Your task to perform on an android device: check storage Image 0: 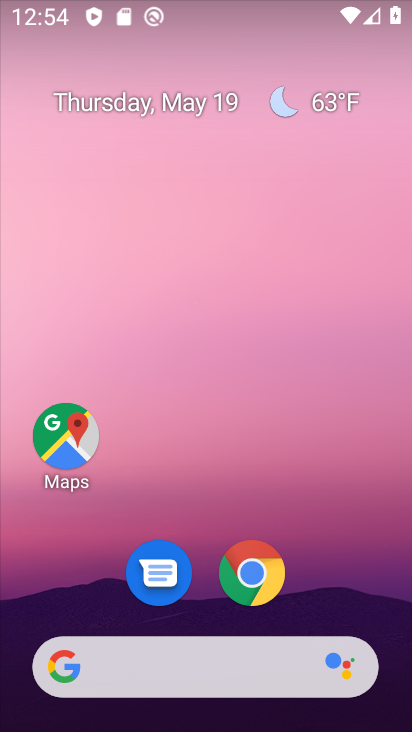
Step 0: drag from (331, 585) to (338, 312)
Your task to perform on an android device: check storage Image 1: 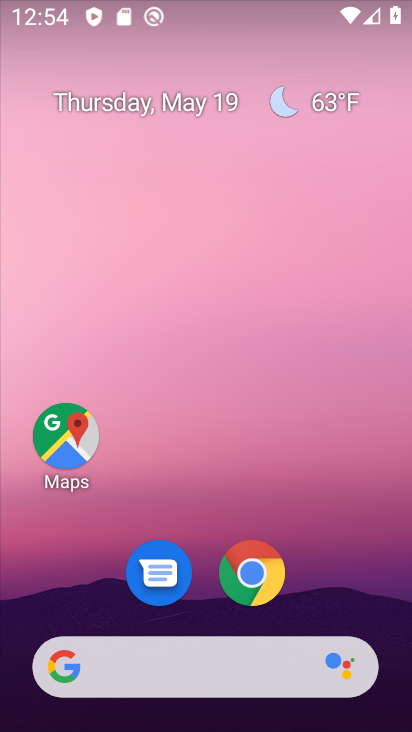
Step 1: drag from (287, 600) to (331, 306)
Your task to perform on an android device: check storage Image 2: 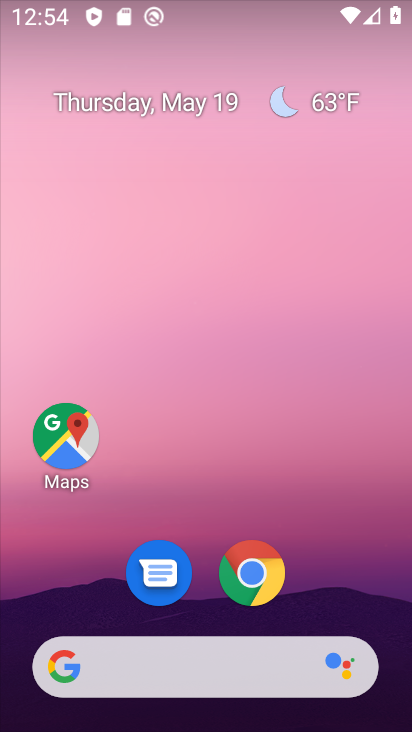
Step 2: drag from (288, 580) to (316, 268)
Your task to perform on an android device: check storage Image 3: 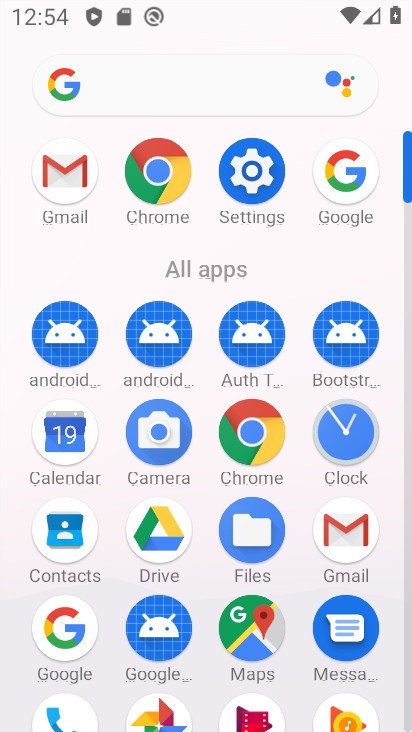
Step 3: click (259, 155)
Your task to perform on an android device: check storage Image 4: 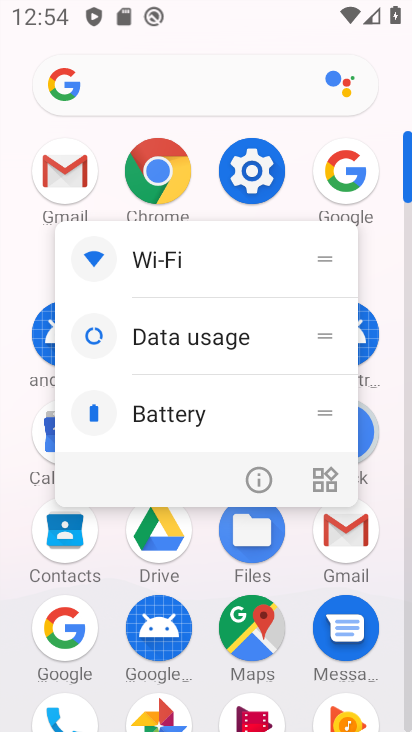
Step 4: click (236, 175)
Your task to perform on an android device: check storage Image 5: 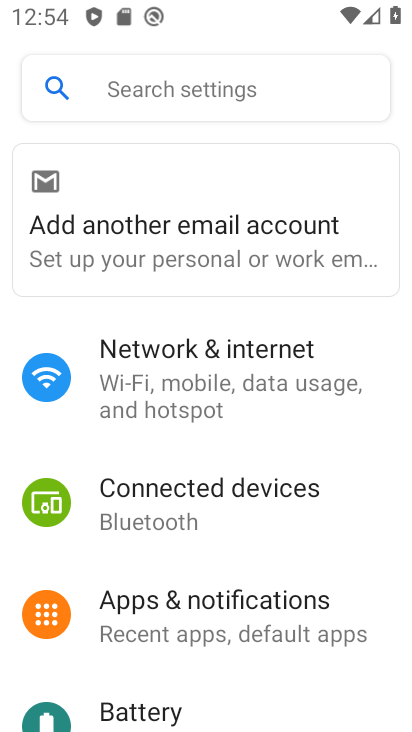
Step 5: drag from (194, 649) to (290, 227)
Your task to perform on an android device: check storage Image 6: 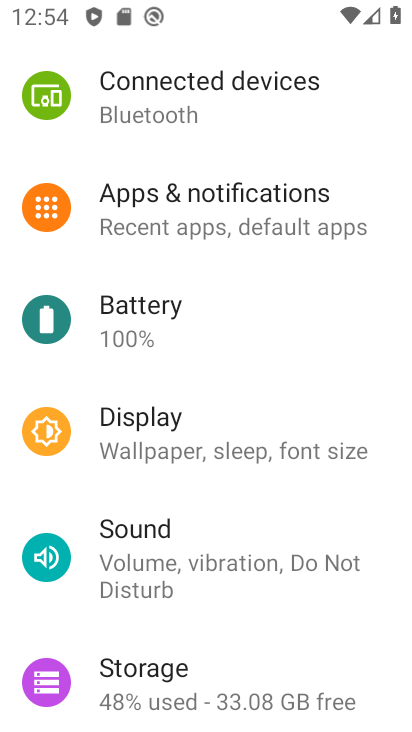
Step 6: click (221, 678)
Your task to perform on an android device: check storage Image 7: 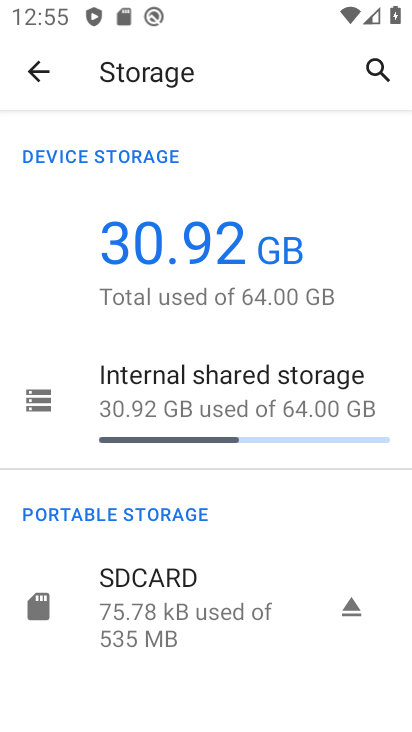
Step 7: task complete